Your task to perform on an android device: Go to wifi settings Image 0: 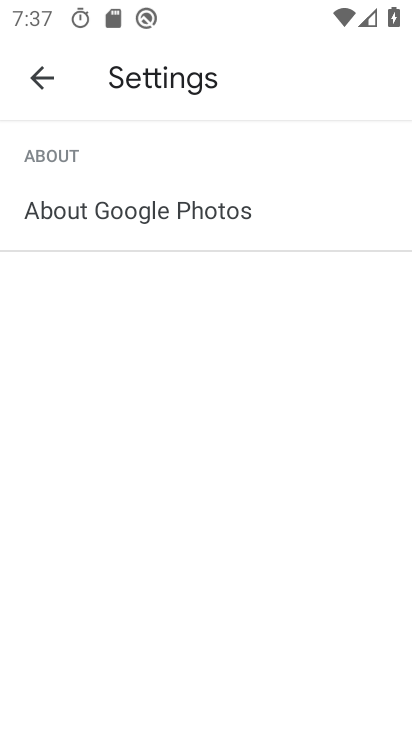
Step 0: press home button
Your task to perform on an android device: Go to wifi settings Image 1: 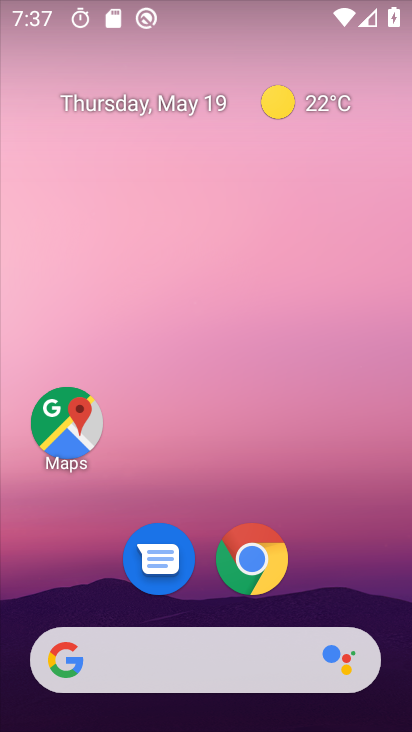
Step 1: drag from (200, 588) to (240, 54)
Your task to perform on an android device: Go to wifi settings Image 2: 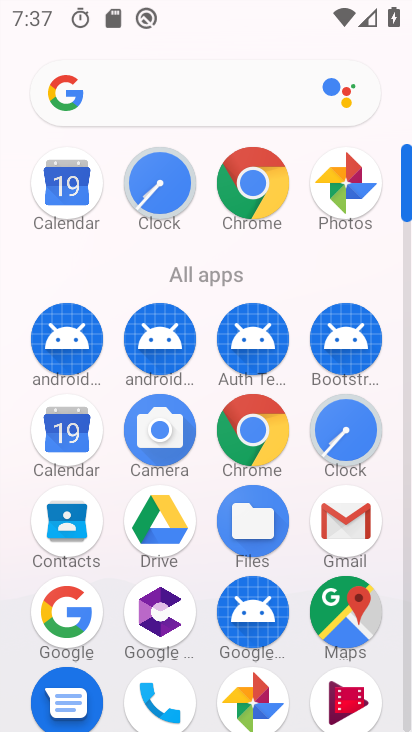
Step 2: drag from (207, 567) to (203, 252)
Your task to perform on an android device: Go to wifi settings Image 3: 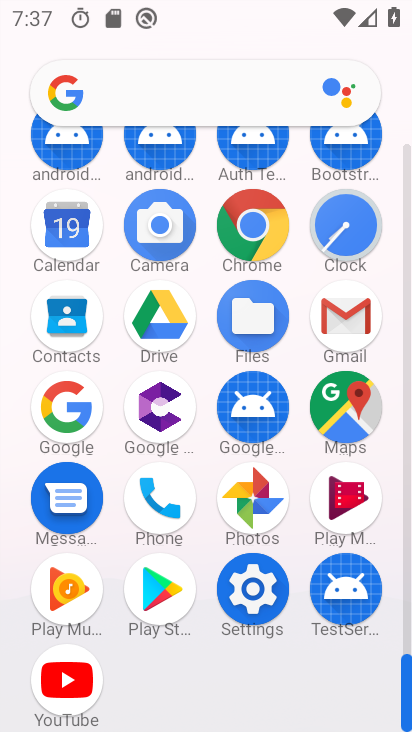
Step 3: click (247, 601)
Your task to perform on an android device: Go to wifi settings Image 4: 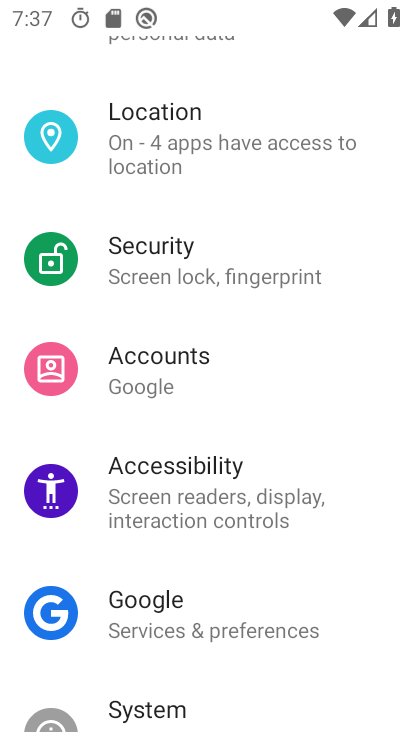
Step 4: drag from (225, 271) to (226, 424)
Your task to perform on an android device: Go to wifi settings Image 5: 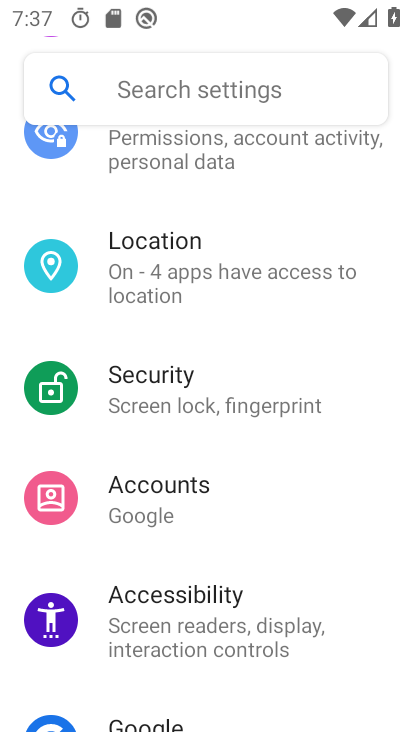
Step 5: drag from (236, 304) to (260, 457)
Your task to perform on an android device: Go to wifi settings Image 6: 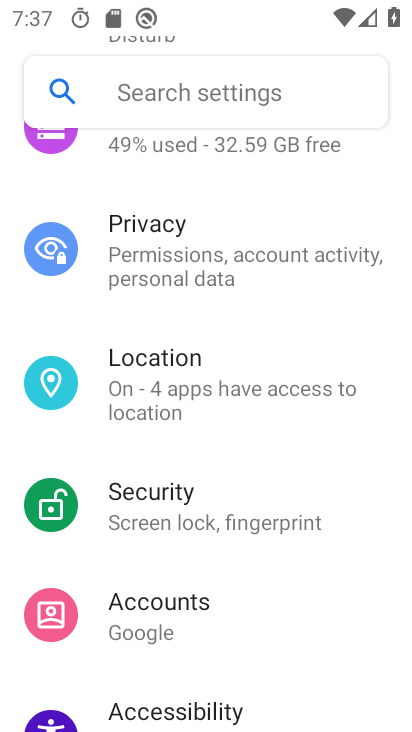
Step 6: drag from (222, 315) to (226, 569)
Your task to perform on an android device: Go to wifi settings Image 7: 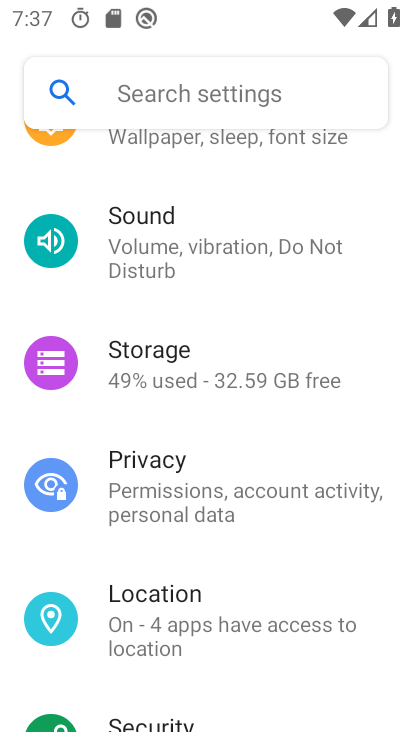
Step 7: drag from (215, 293) to (254, 533)
Your task to perform on an android device: Go to wifi settings Image 8: 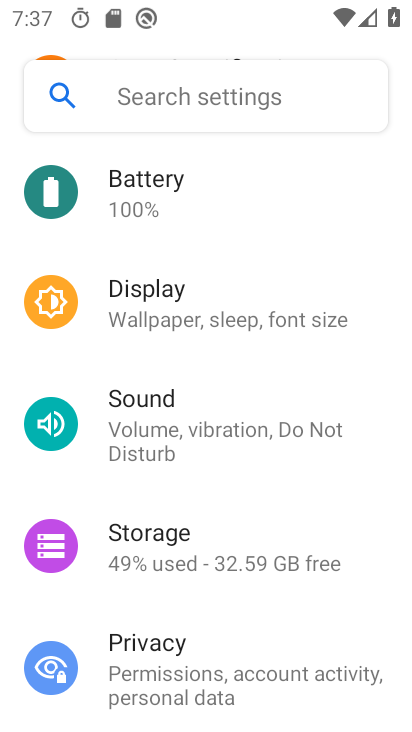
Step 8: drag from (224, 303) to (193, 576)
Your task to perform on an android device: Go to wifi settings Image 9: 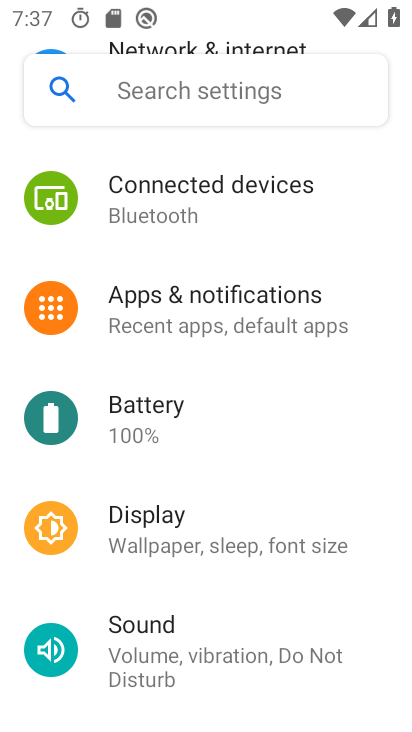
Step 9: drag from (227, 264) to (259, 530)
Your task to perform on an android device: Go to wifi settings Image 10: 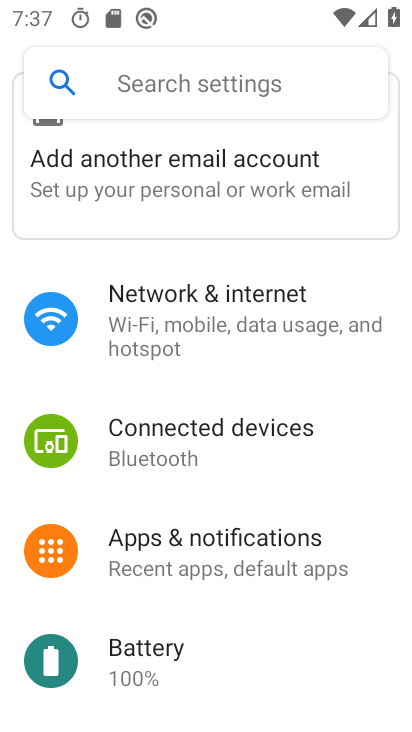
Step 10: click (209, 304)
Your task to perform on an android device: Go to wifi settings Image 11: 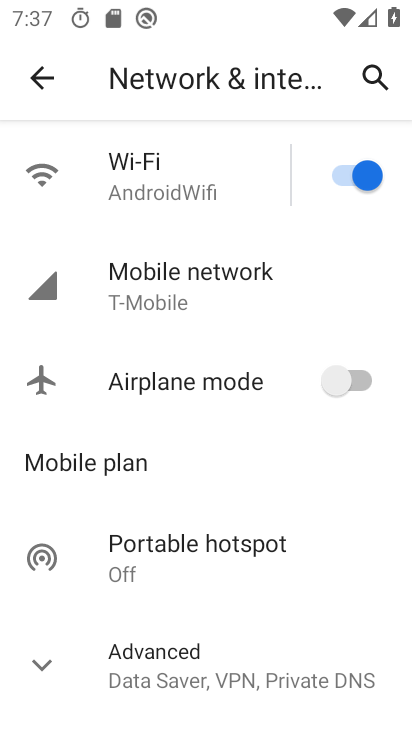
Step 11: click (111, 168)
Your task to perform on an android device: Go to wifi settings Image 12: 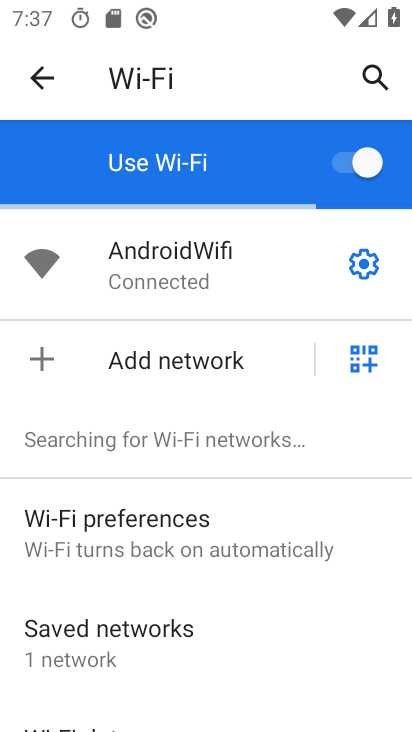
Step 12: task complete